Your task to perform on an android device: Open settings Image 0: 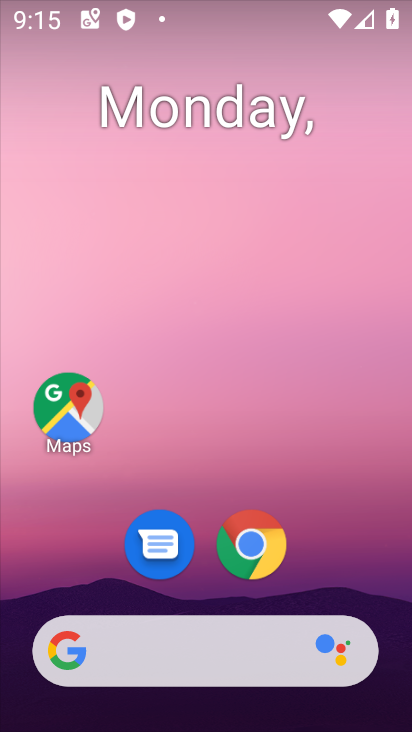
Step 0: drag from (340, 554) to (278, 8)
Your task to perform on an android device: Open settings Image 1: 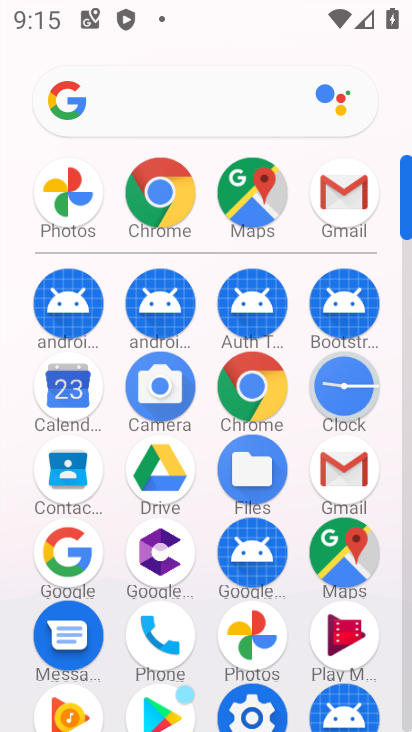
Step 1: click (254, 702)
Your task to perform on an android device: Open settings Image 2: 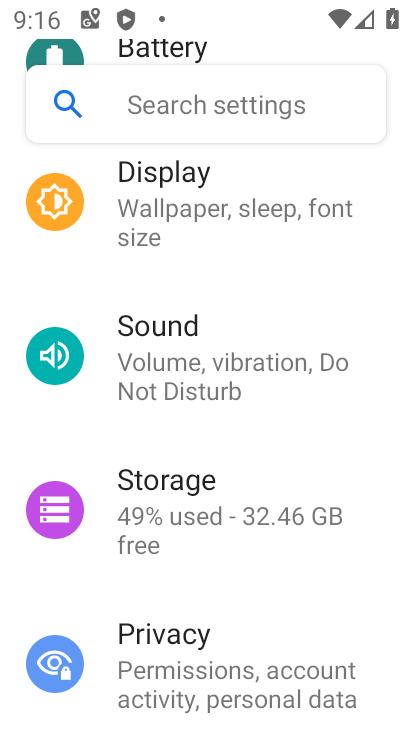
Step 2: task complete